Your task to perform on an android device: open app "Facebook Lite" Image 0: 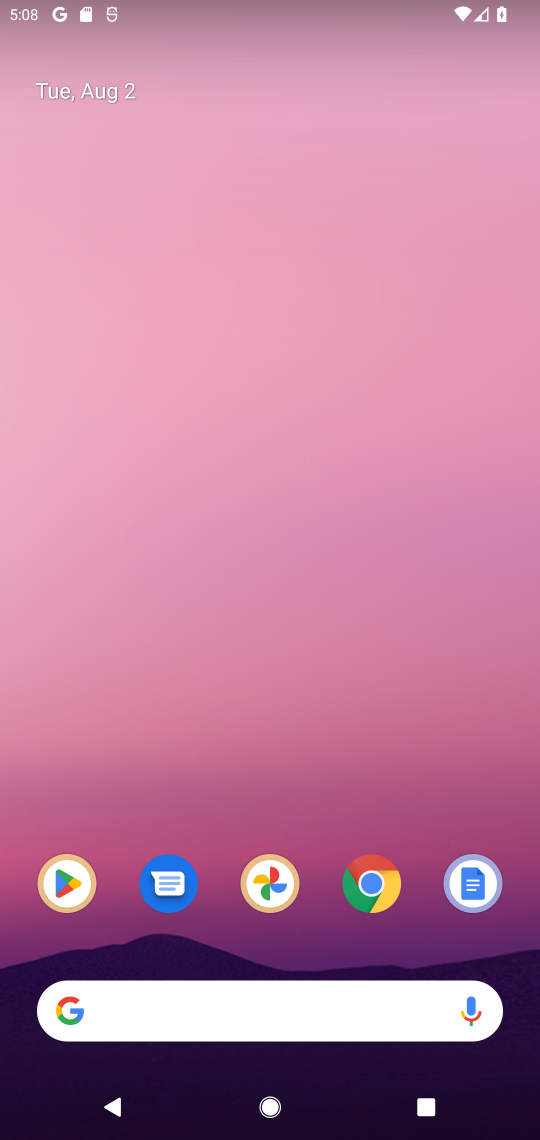
Step 0: drag from (324, 952) to (357, 39)
Your task to perform on an android device: open app "Facebook Lite" Image 1: 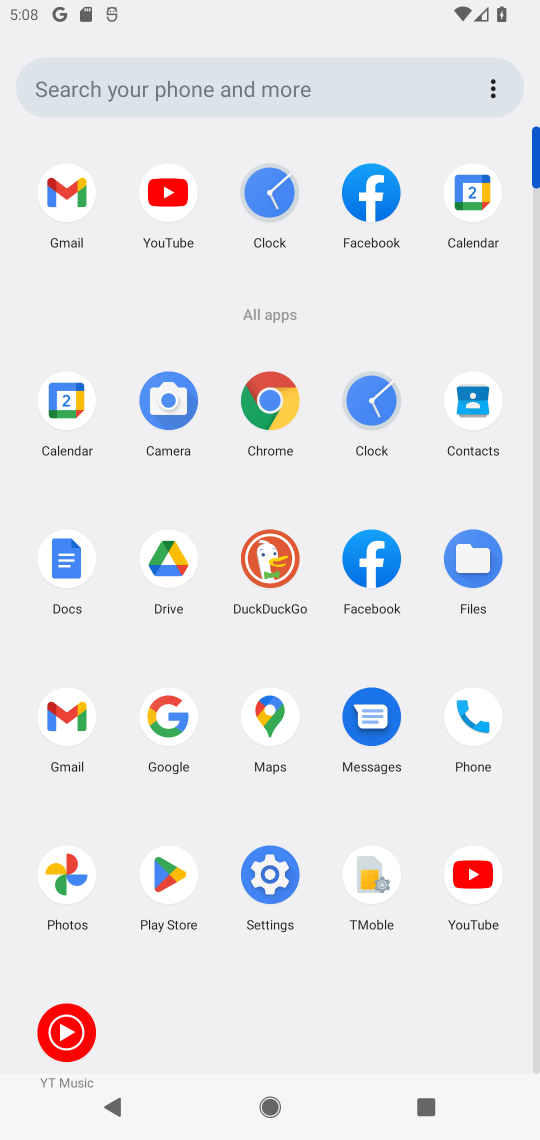
Step 1: click (171, 852)
Your task to perform on an android device: open app "Facebook Lite" Image 2: 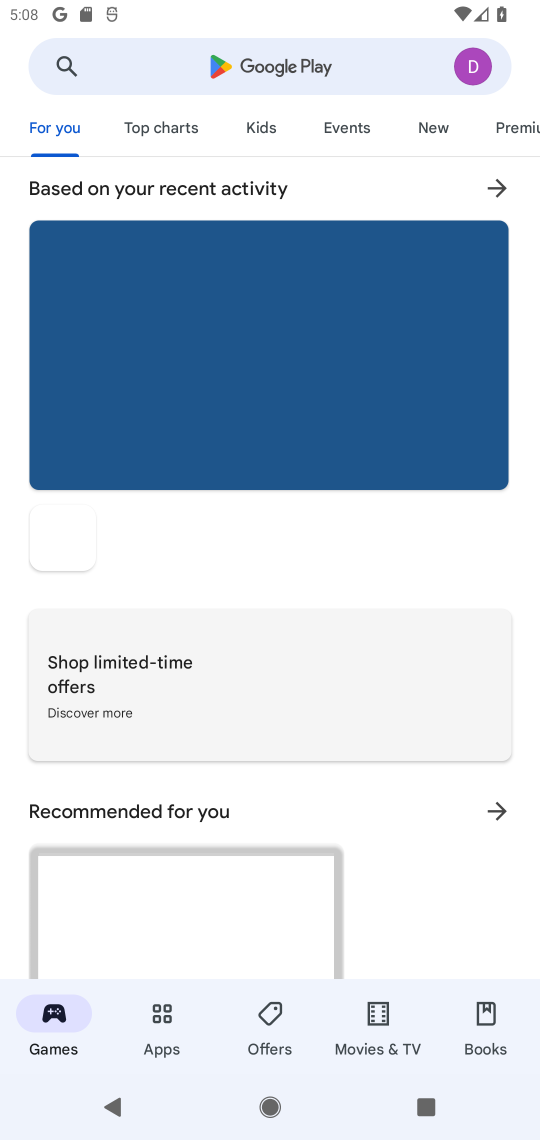
Step 2: click (161, 87)
Your task to perform on an android device: open app "Facebook Lite" Image 3: 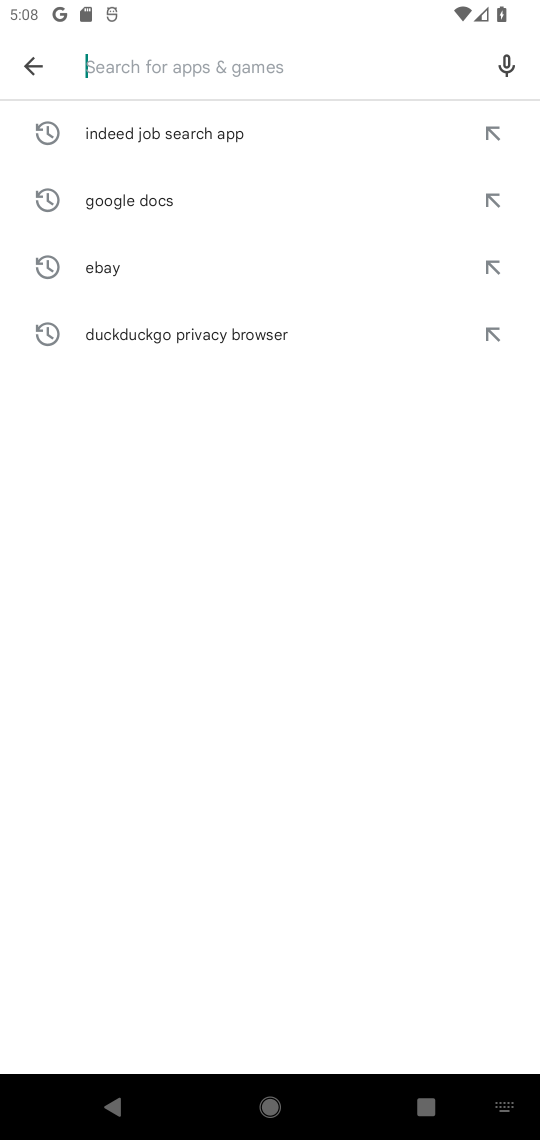
Step 3: type "Facebook Lite"
Your task to perform on an android device: open app "Facebook Lite" Image 4: 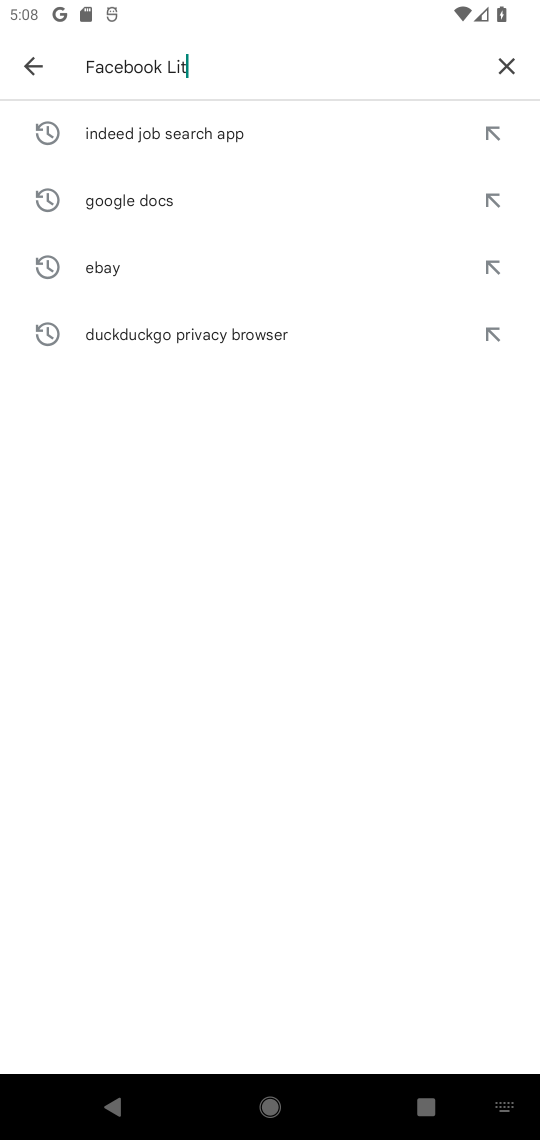
Step 4: type ""
Your task to perform on an android device: open app "Facebook Lite" Image 5: 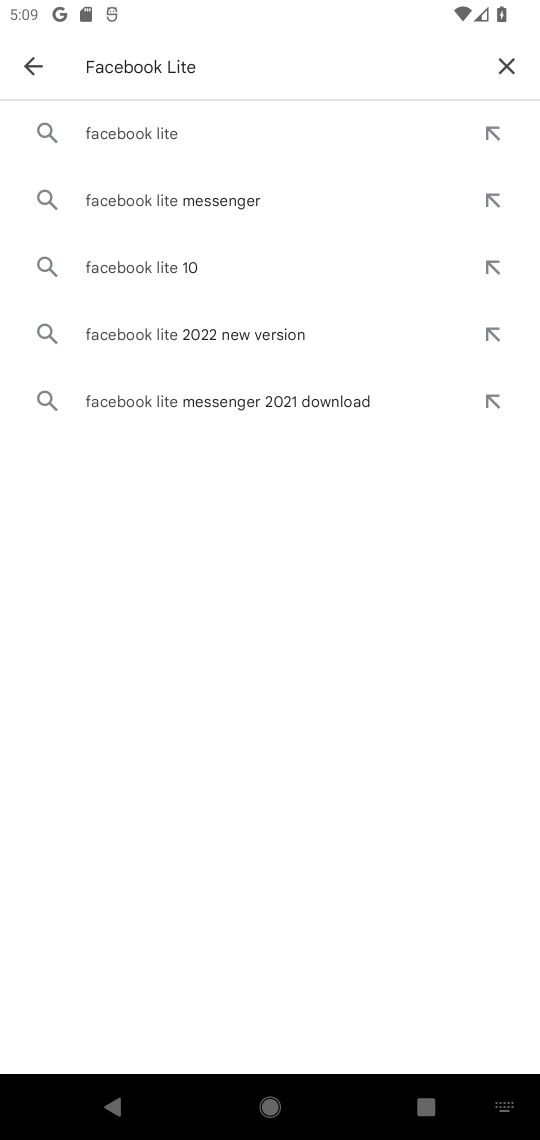
Step 5: click (115, 129)
Your task to perform on an android device: open app "Facebook Lite" Image 6: 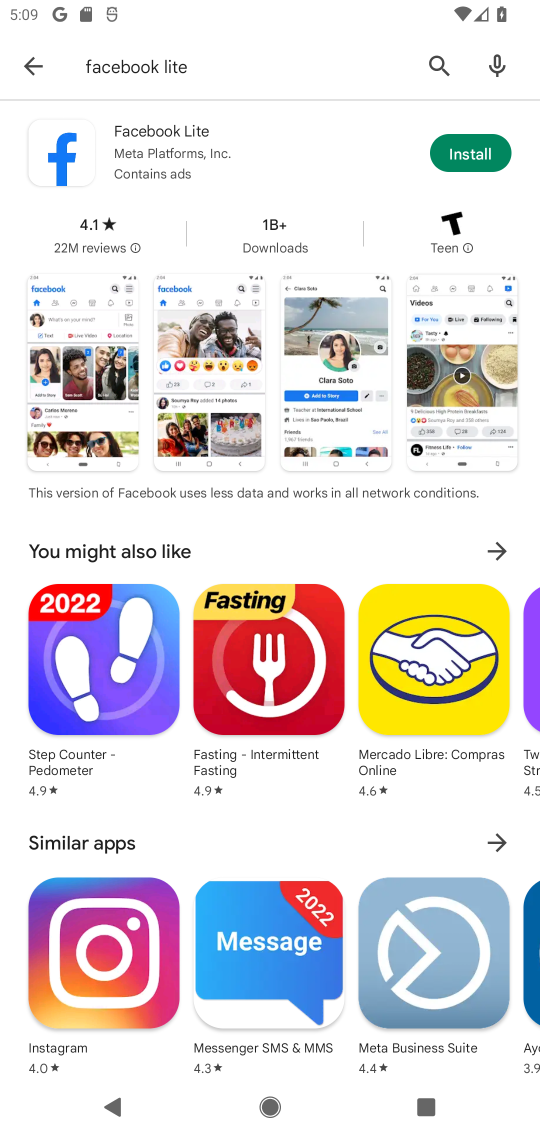
Step 6: click (241, 158)
Your task to perform on an android device: open app "Facebook Lite" Image 7: 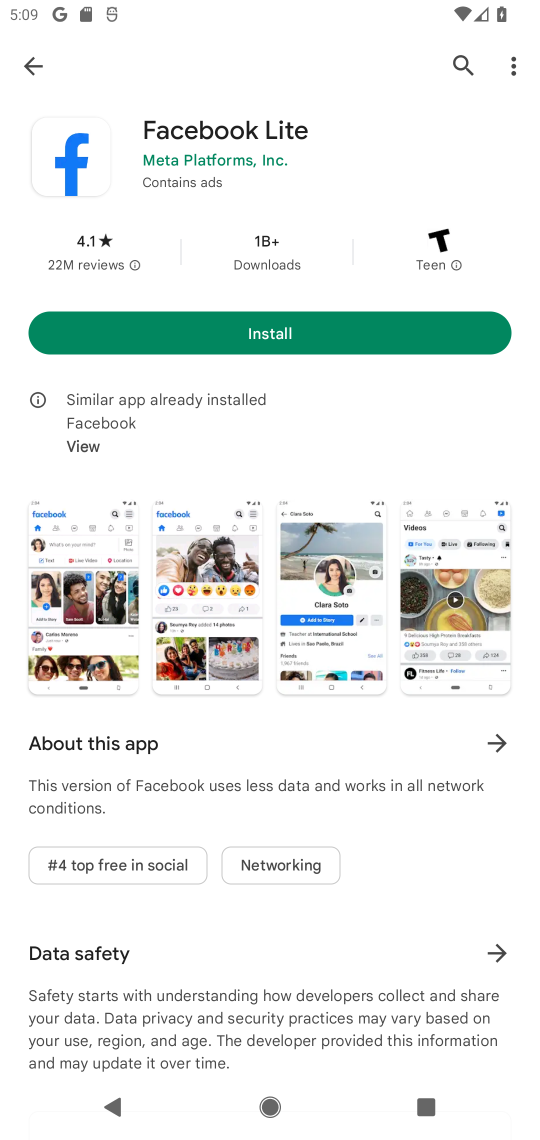
Step 7: task complete